Your task to perform on an android device: open the mobile data screen to see how much data has been used Image 0: 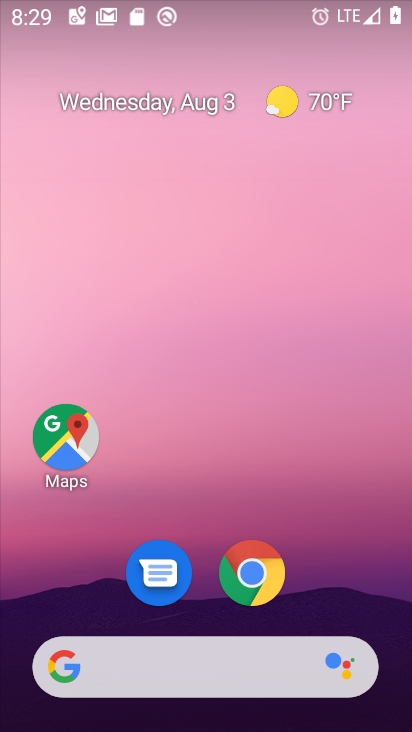
Step 0: drag from (335, 612) to (316, 10)
Your task to perform on an android device: open the mobile data screen to see how much data has been used Image 1: 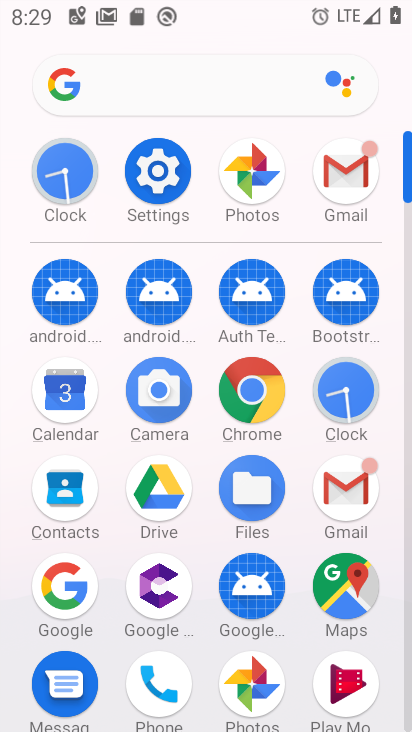
Step 1: click (161, 173)
Your task to perform on an android device: open the mobile data screen to see how much data has been used Image 2: 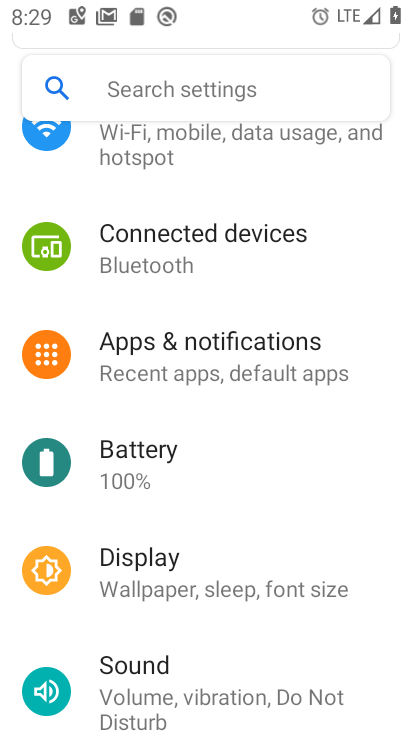
Step 2: click (164, 156)
Your task to perform on an android device: open the mobile data screen to see how much data has been used Image 3: 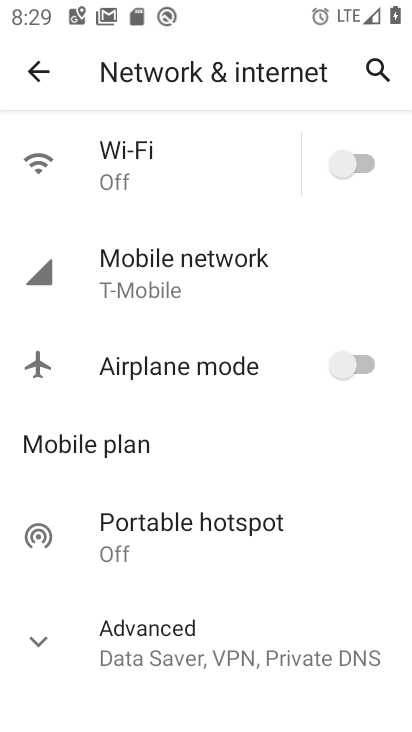
Step 3: click (134, 271)
Your task to perform on an android device: open the mobile data screen to see how much data has been used Image 4: 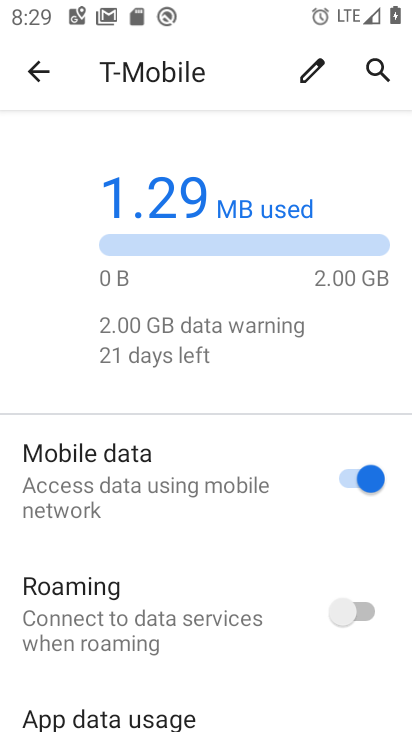
Step 4: drag from (115, 576) to (107, 242)
Your task to perform on an android device: open the mobile data screen to see how much data has been used Image 5: 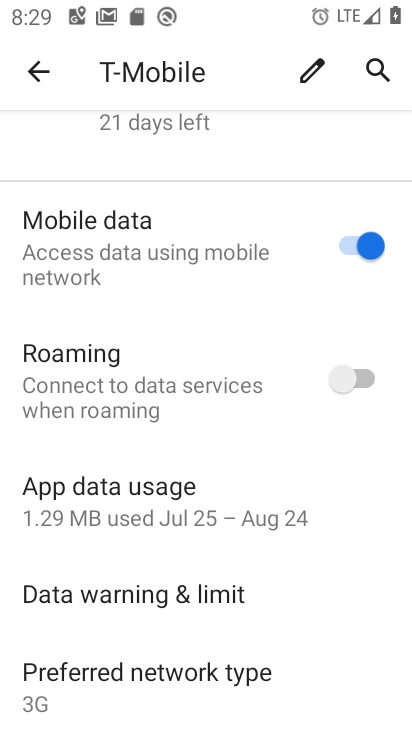
Step 5: click (90, 505)
Your task to perform on an android device: open the mobile data screen to see how much data has been used Image 6: 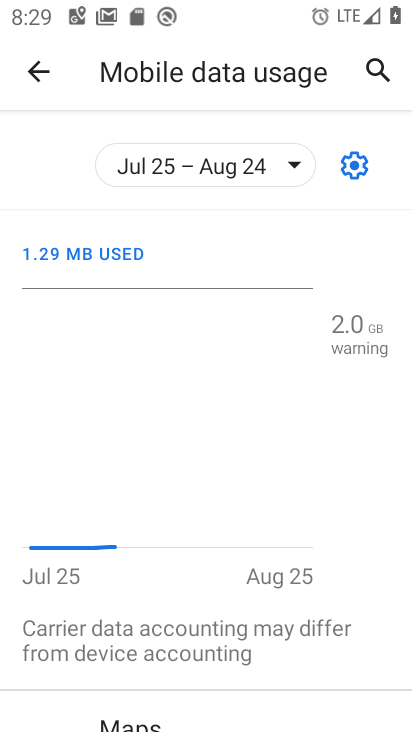
Step 6: task complete